Your task to perform on an android device: Search for Italian restaurants on Maps Image 0: 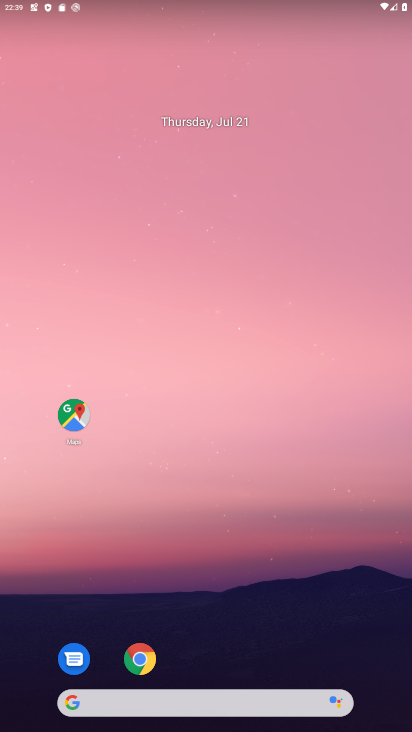
Step 0: drag from (298, 614) to (338, 59)
Your task to perform on an android device: Search for Italian restaurants on Maps Image 1: 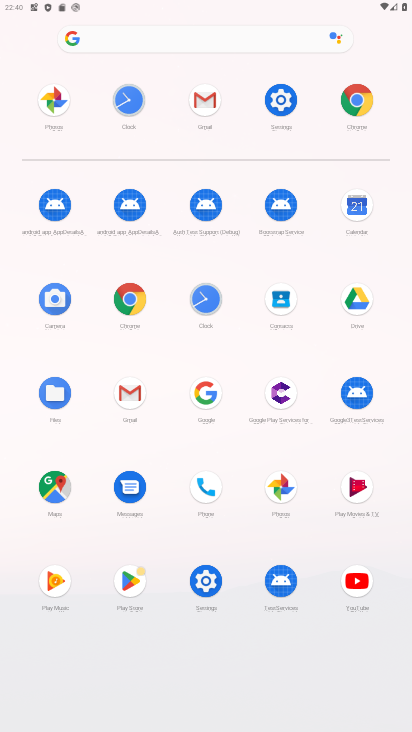
Step 1: click (57, 489)
Your task to perform on an android device: Search for Italian restaurants on Maps Image 2: 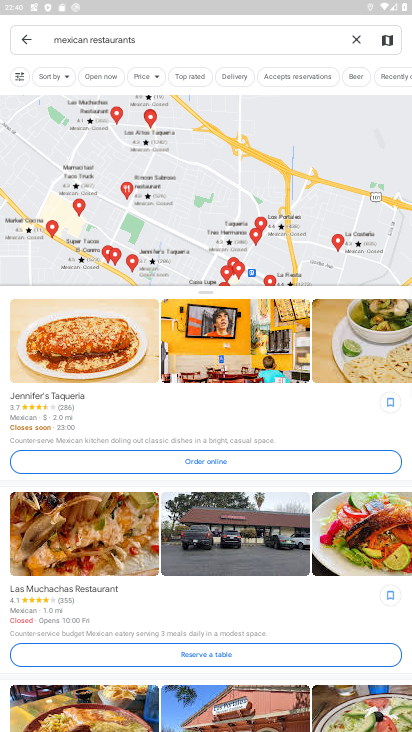
Step 2: click (357, 32)
Your task to perform on an android device: Search for Italian restaurants on Maps Image 3: 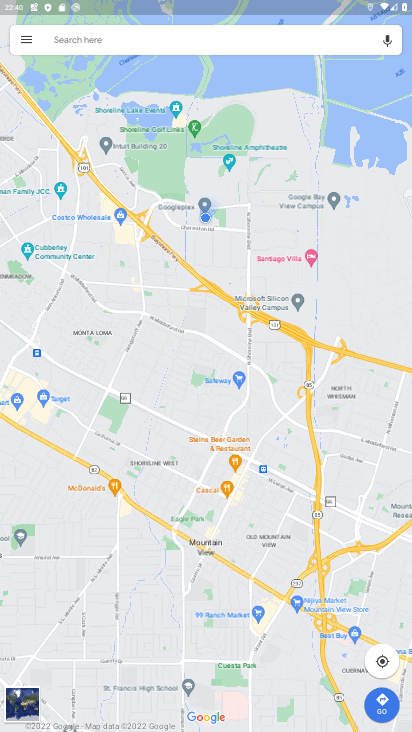
Step 3: type "Italian restaurants"
Your task to perform on an android device: Search for Italian restaurants on Maps Image 4: 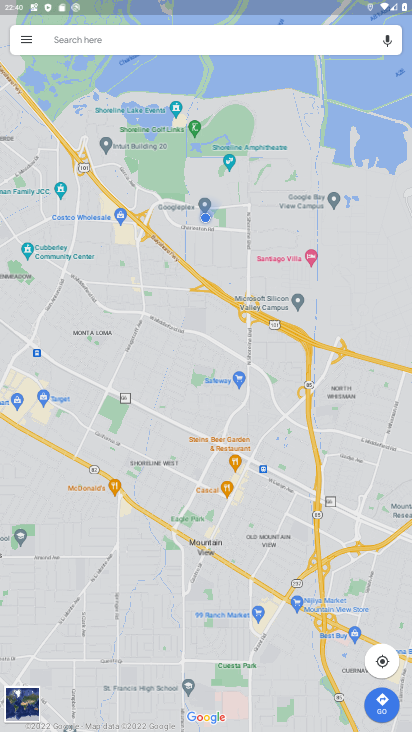
Step 4: click (294, 43)
Your task to perform on an android device: Search for Italian restaurants on Maps Image 5: 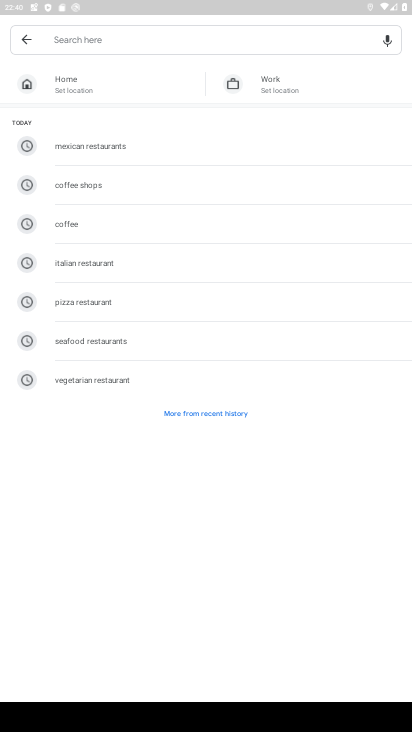
Step 5: type "Italian restaurants"
Your task to perform on an android device: Search for Italian restaurants on Maps Image 6: 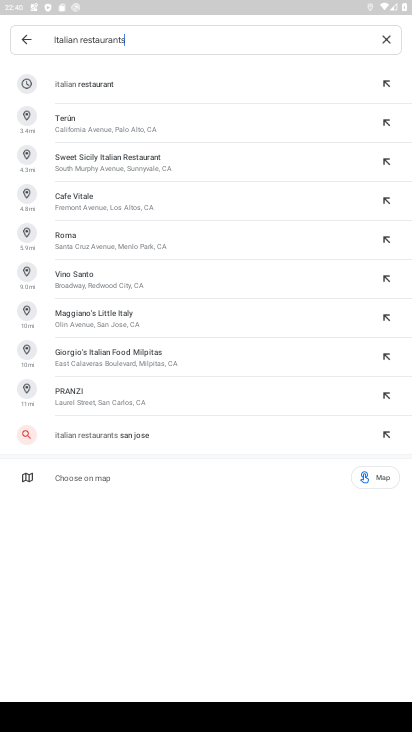
Step 6: press enter
Your task to perform on an android device: Search for Italian restaurants on Maps Image 7: 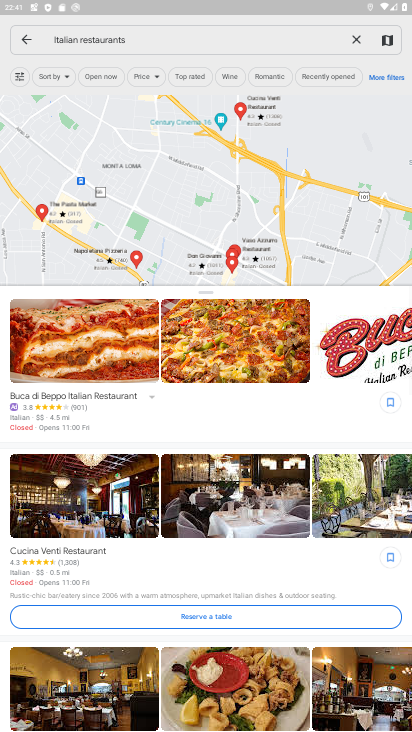
Step 7: task complete